Your task to perform on an android device: Turn off the flashlight Image 0: 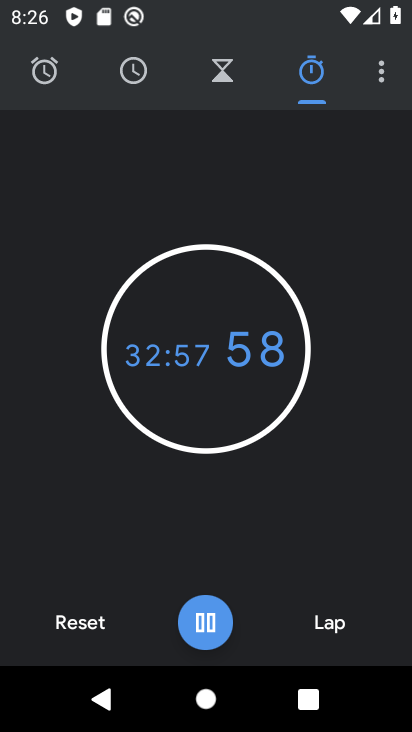
Step 0: press home button
Your task to perform on an android device: Turn off the flashlight Image 1: 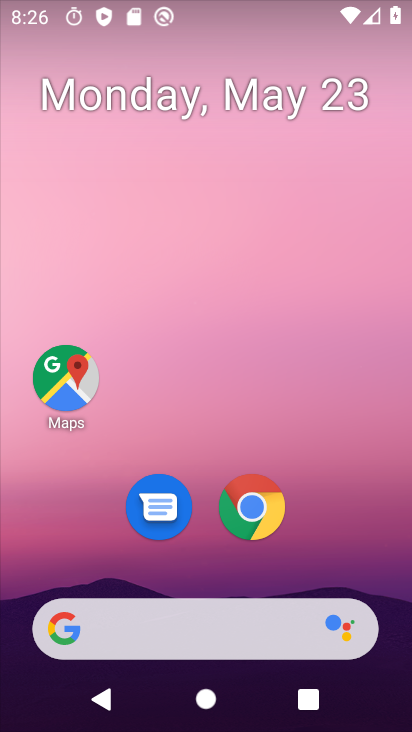
Step 1: drag from (336, 559) to (310, 8)
Your task to perform on an android device: Turn off the flashlight Image 2: 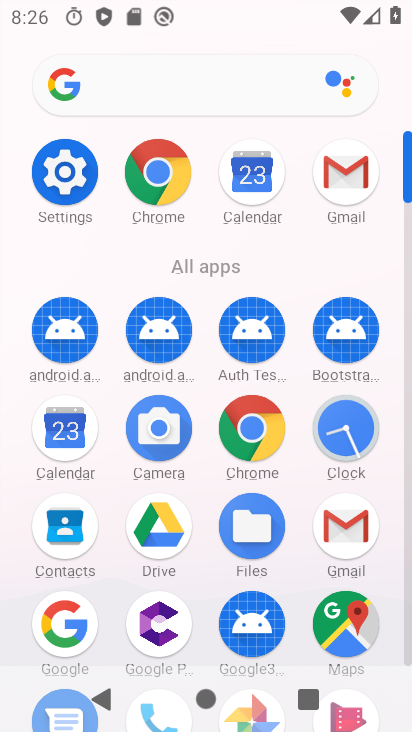
Step 2: click (64, 167)
Your task to perform on an android device: Turn off the flashlight Image 3: 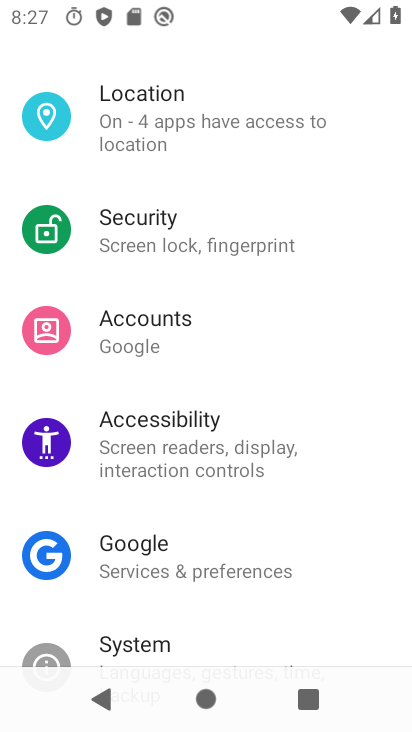
Step 3: task complete